Your task to perform on an android device: Open display settings Image 0: 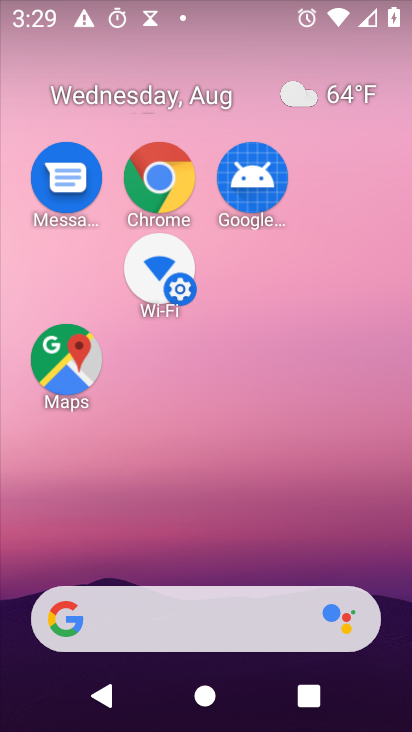
Step 0: press home button
Your task to perform on an android device: Open display settings Image 1: 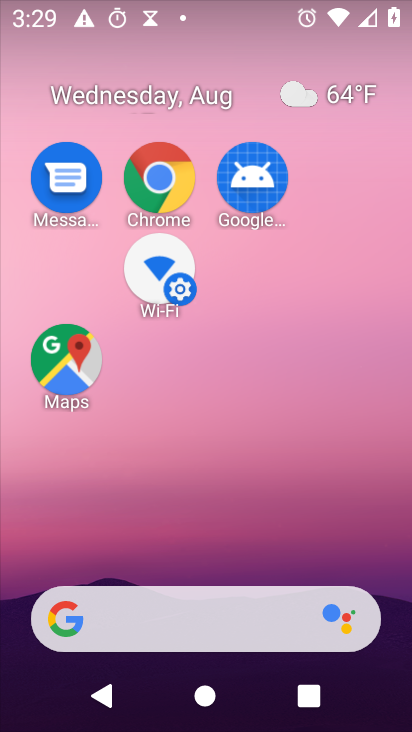
Step 1: drag from (291, 581) to (298, 1)
Your task to perform on an android device: Open display settings Image 2: 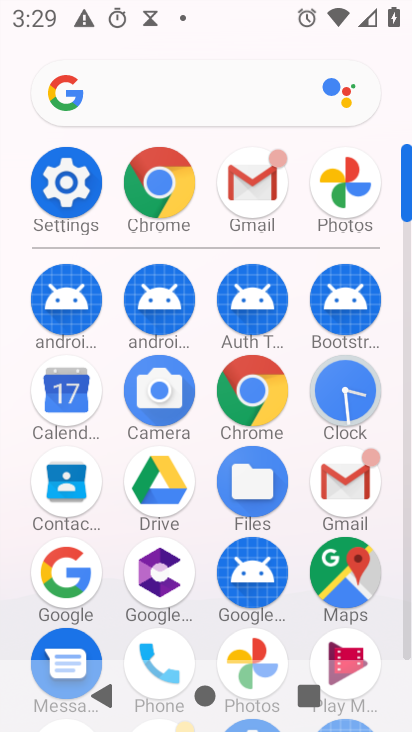
Step 2: click (68, 172)
Your task to perform on an android device: Open display settings Image 3: 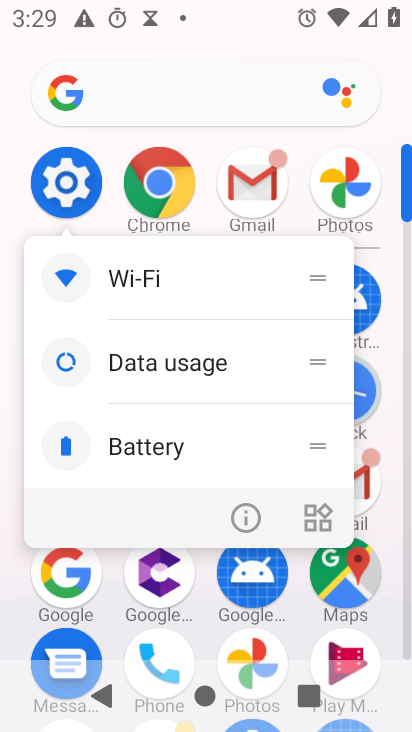
Step 3: click (86, 199)
Your task to perform on an android device: Open display settings Image 4: 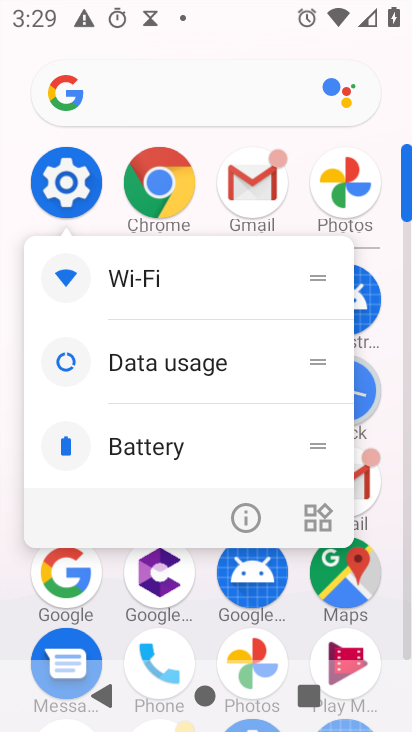
Step 4: click (80, 192)
Your task to perform on an android device: Open display settings Image 5: 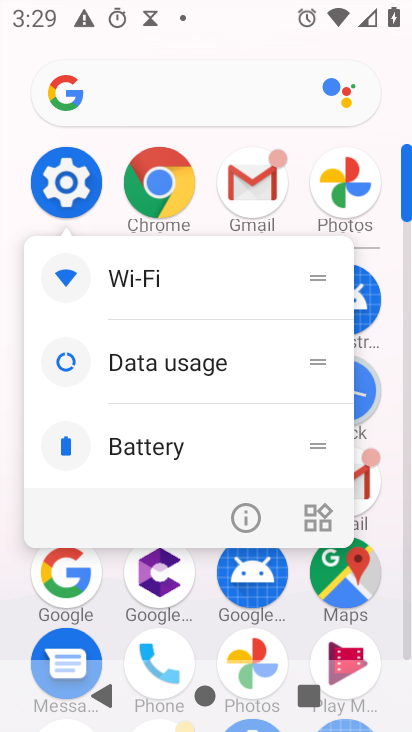
Step 5: click (78, 183)
Your task to perform on an android device: Open display settings Image 6: 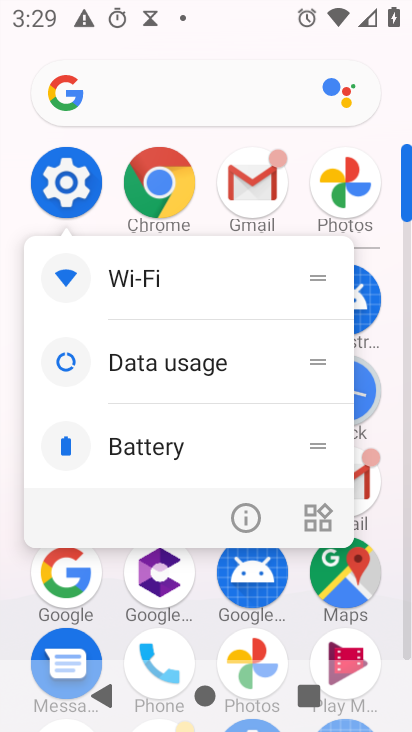
Step 6: click (78, 183)
Your task to perform on an android device: Open display settings Image 7: 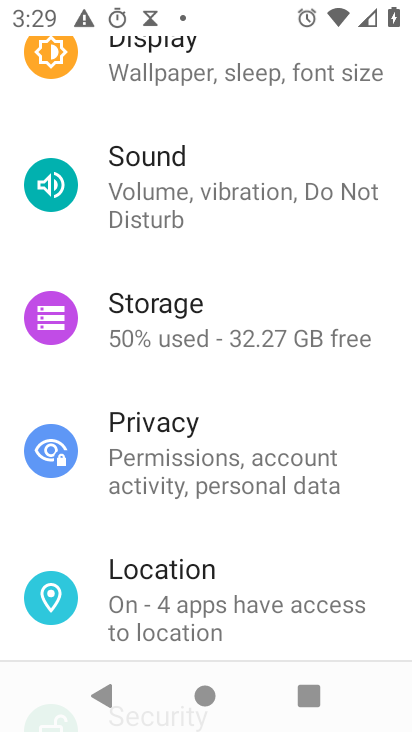
Step 7: click (178, 56)
Your task to perform on an android device: Open display settings Image 8: 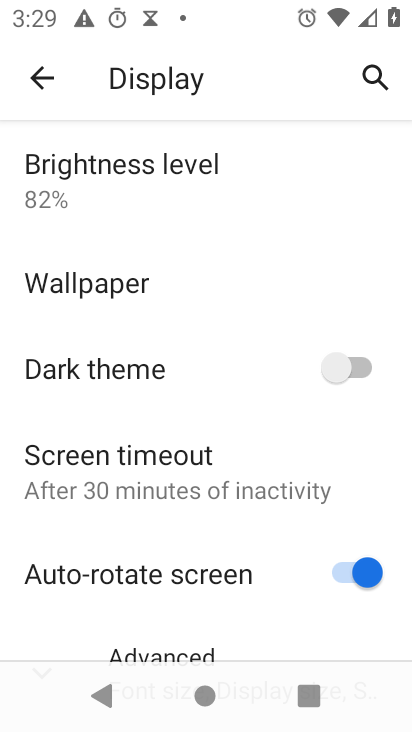
Step 8: task complete